Your task to perform on an android device: Open Google Image 0: 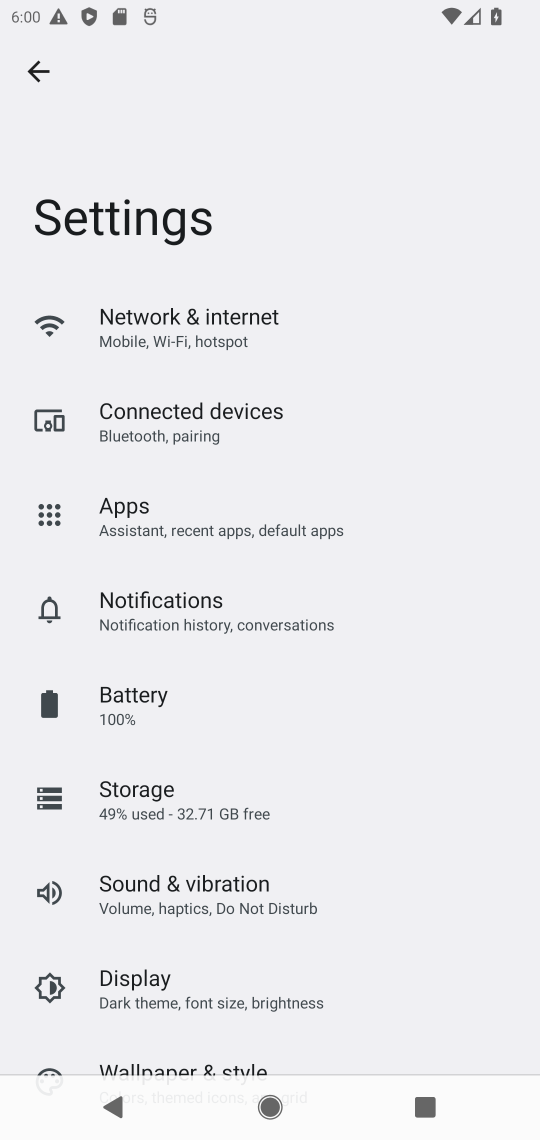
Step 0: press home button
Your task to perform on an android device: Open Google Image 1: 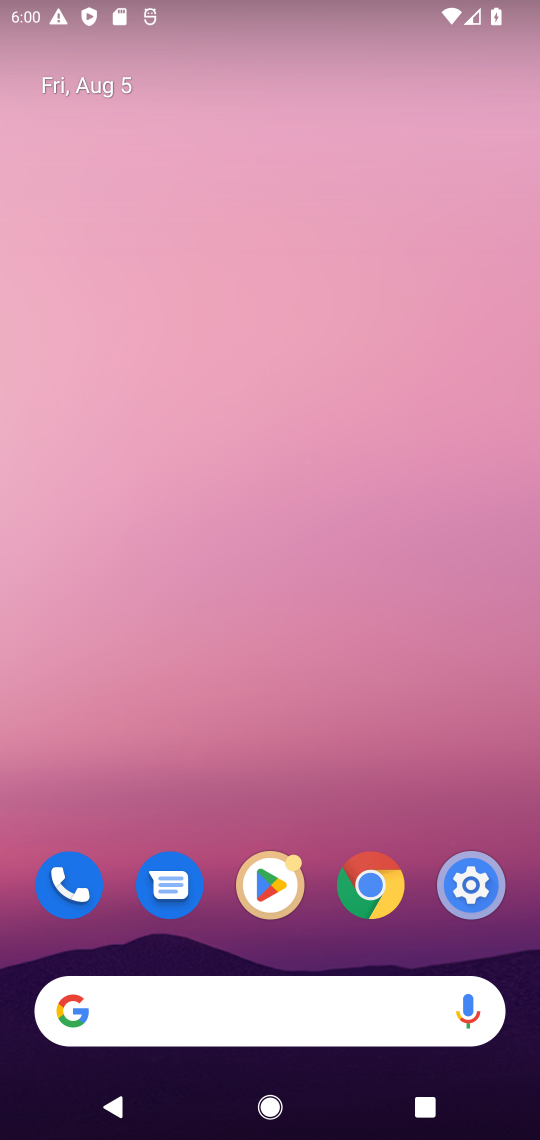
Step 1: click (76, 1001)
Your task to perform on an android device: Open Google Image 2: 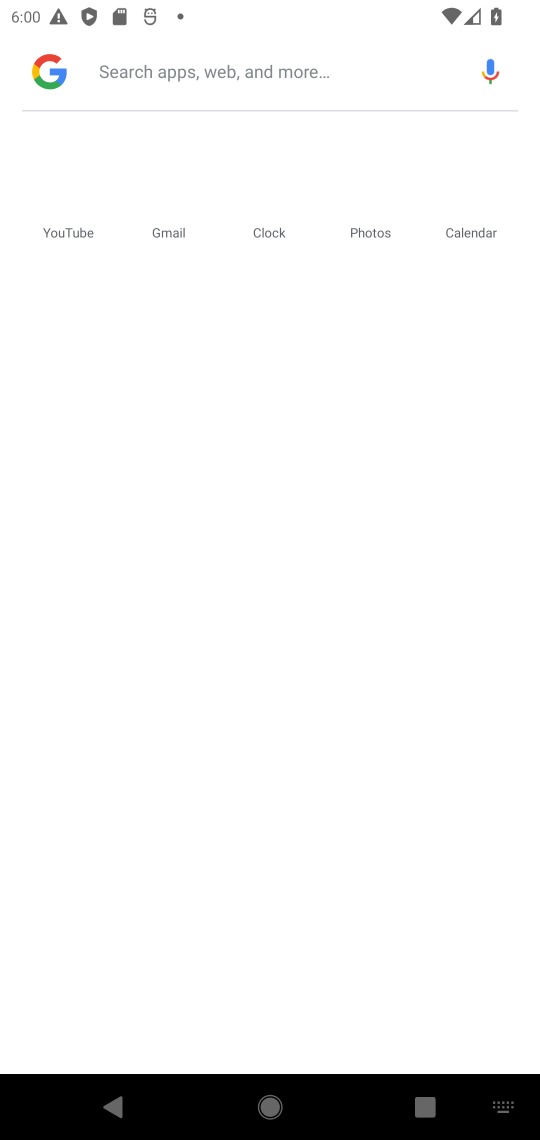
Step 2: click (46, 77)
Your task to perform on an android device: Open Google Image 3: 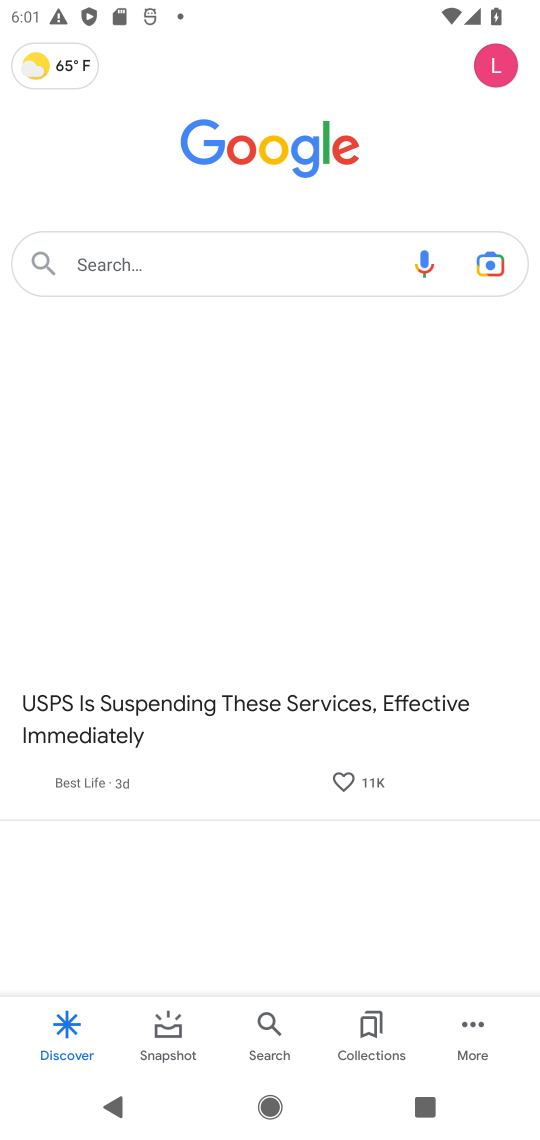
Step 3: task complete